Your task to perform on an android device: Go to Google Image 0: 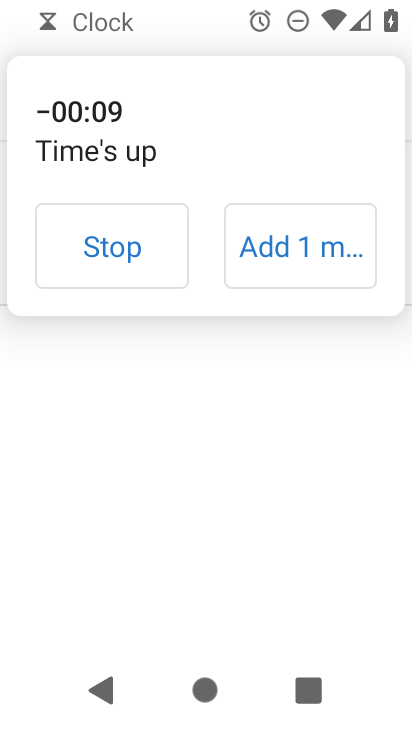
Step 0: press home button
Your task to perform on an android device: Go to Google Image 1: 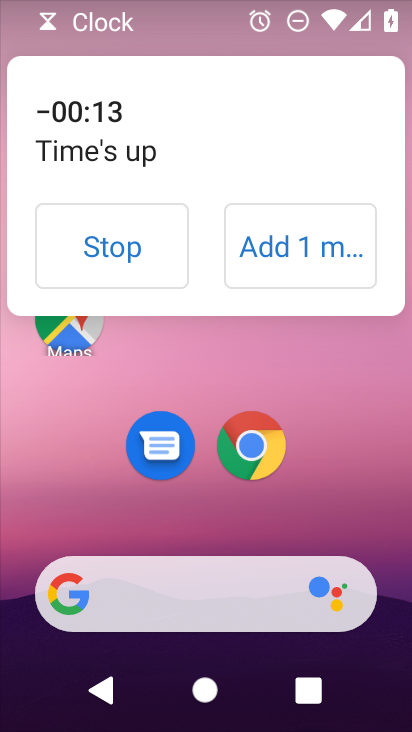
Step 1: drag from (365, 477) to (360, 72)
Your task to perform on an android device: Go to Google Image 2: 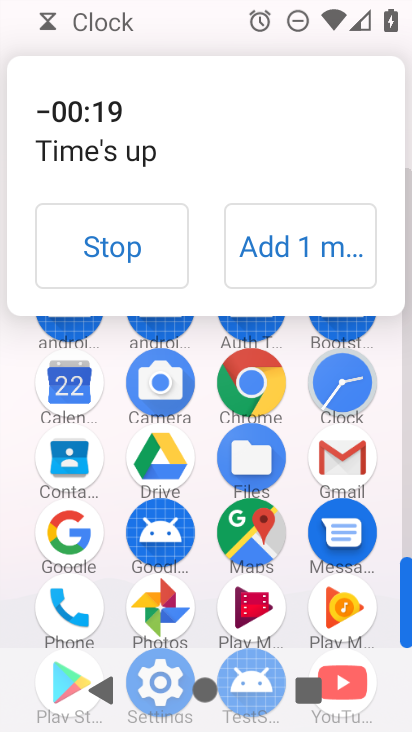
Step 2: click (50, 532)
Your task to perform on an android device: Go to Google Image 3: 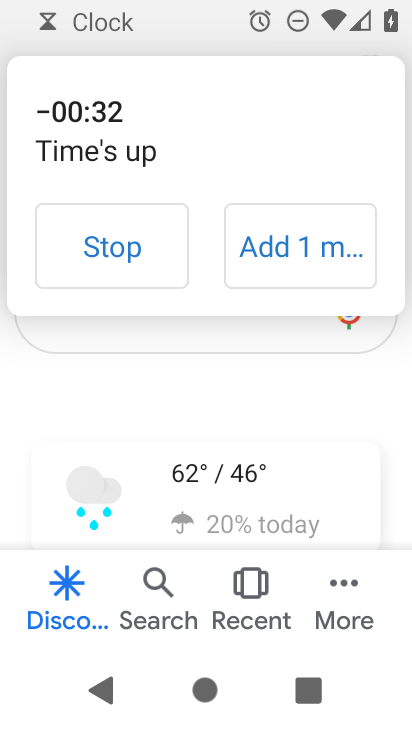
Step 3: task complete